Your task to perform on an android device: Open privacy settings Image 0: 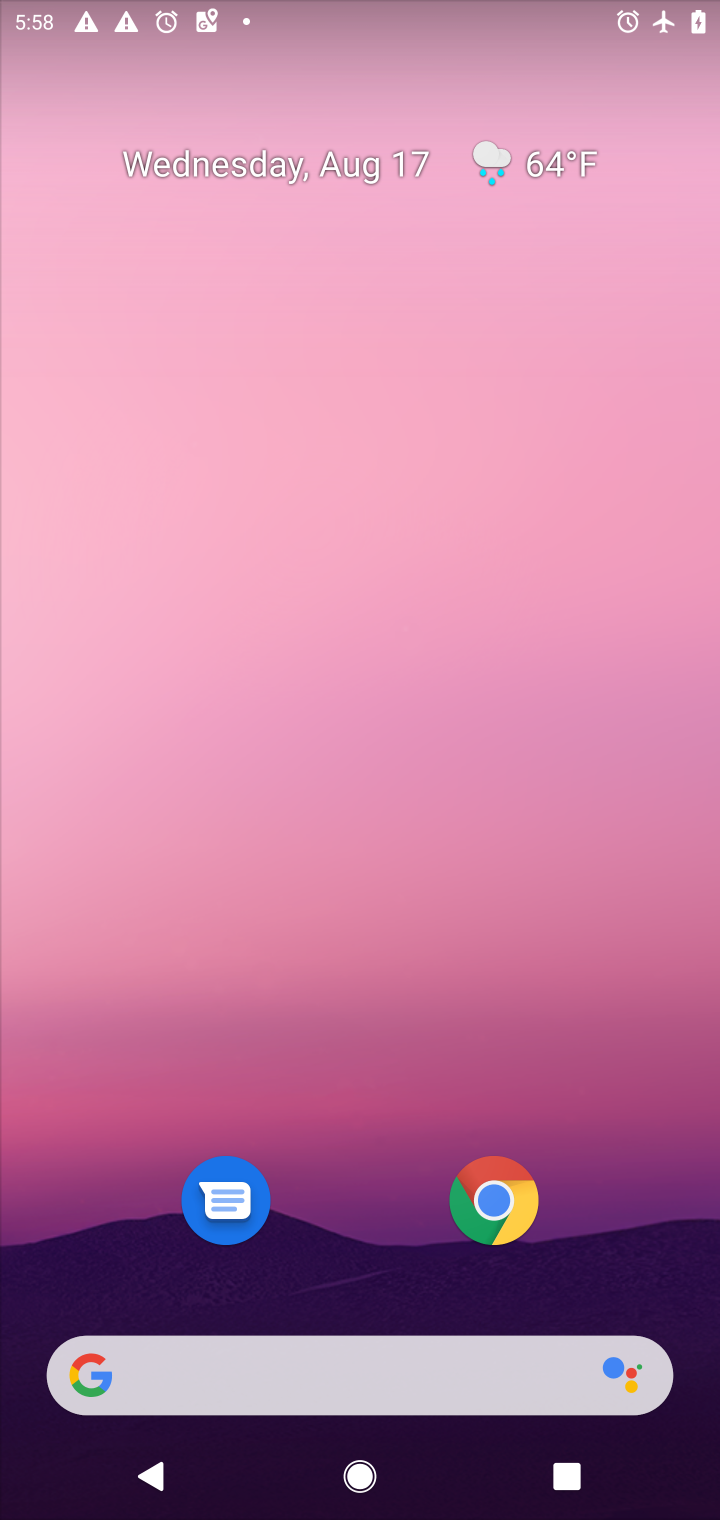
Step 0: drag from (354, 1151) to (391, 50)
Your task to perform on an android device: Open privacy settings Image 1: 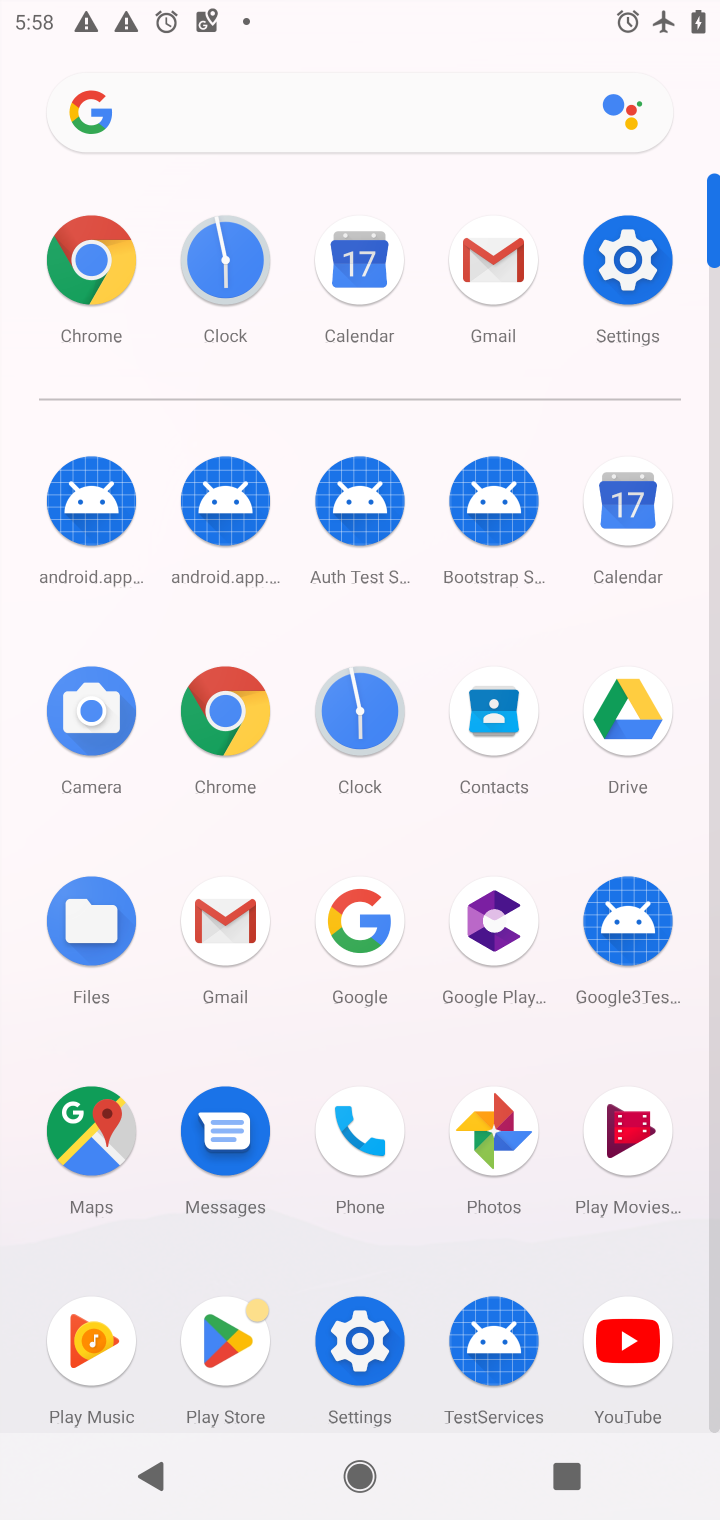
Step 1: click (627, 246)
Your task to perform on an android device: Open privacy settings Image 2: 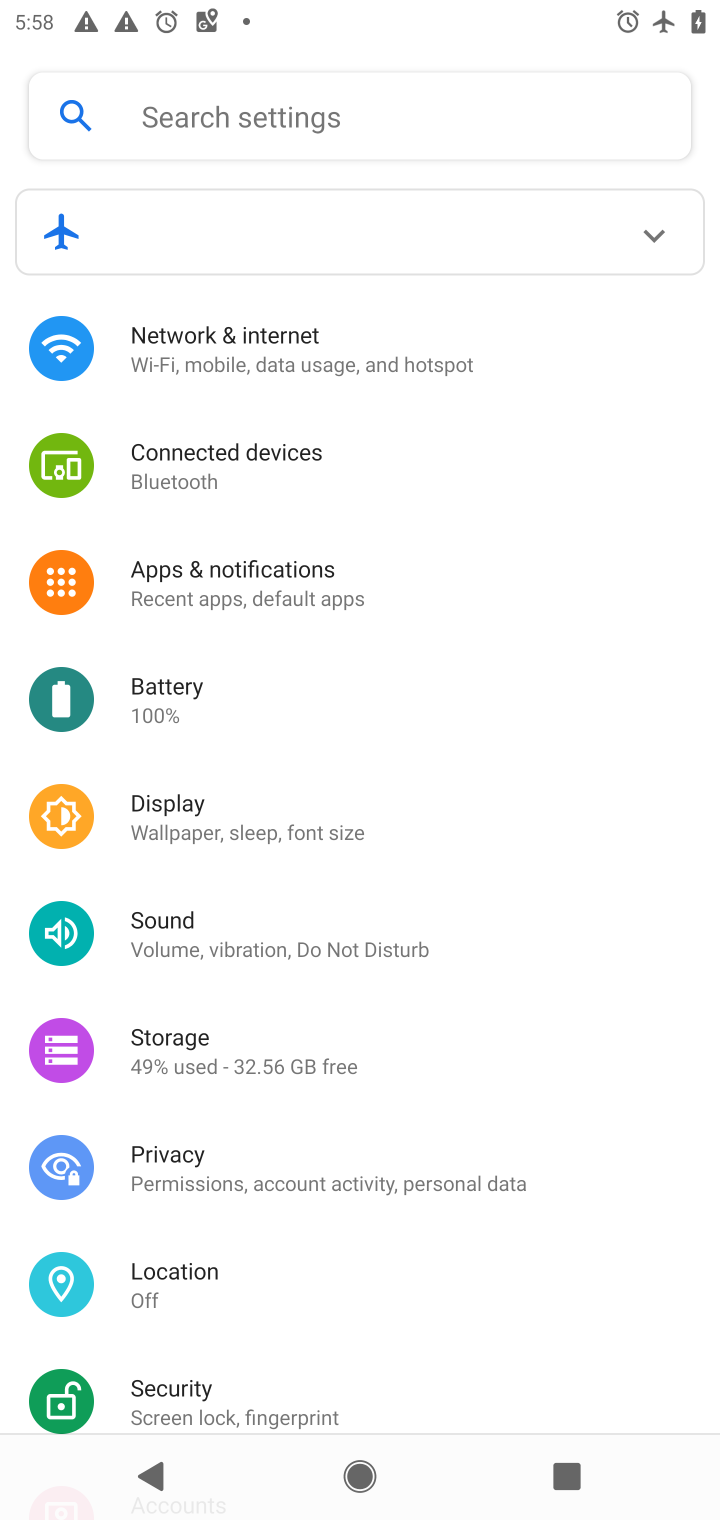
Step 2: click (171, 1165)
Your task to perform on an android device: Open privacy settings Image 3: 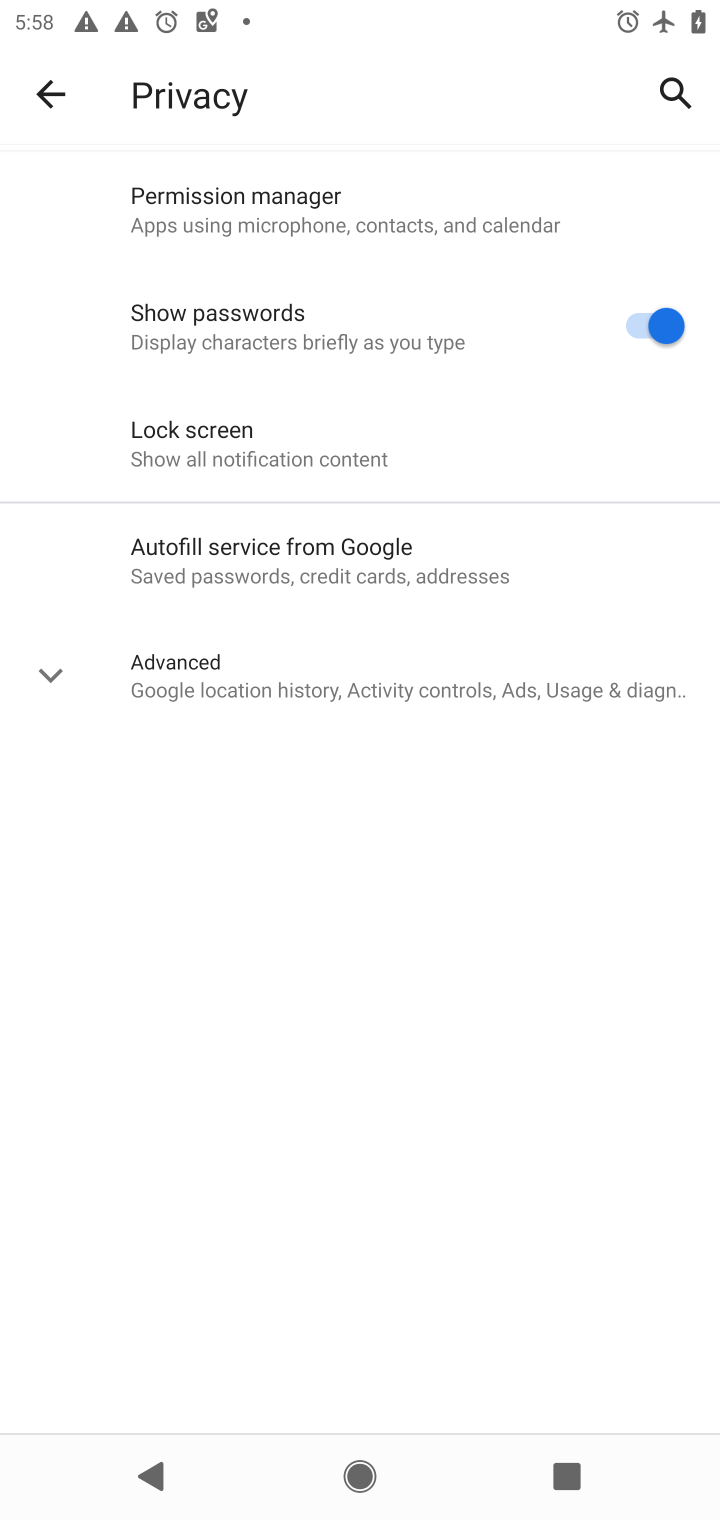
Step 3: task complete